Your task to perform on an android device: turn off location Image 0: 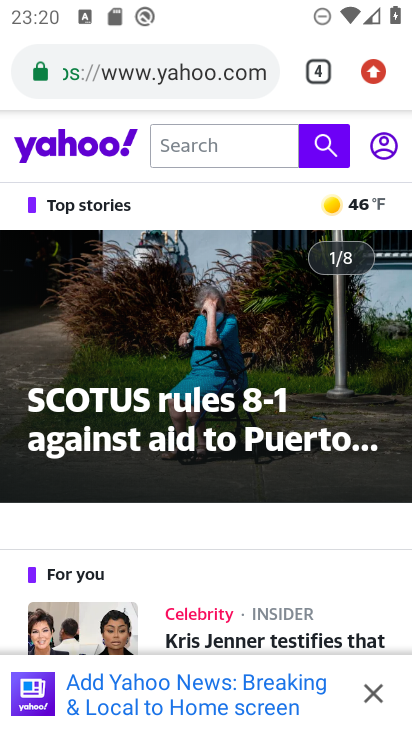
Step 0: press home button
Your task to perform on an android device: turn off location Image 1: 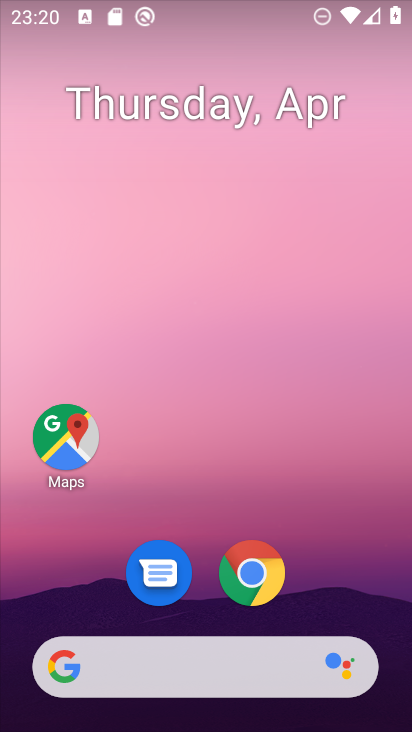
Step 1: drag from (347, 422) to (363, 55)
Your task to perform on an android device: turn off location Image 2: 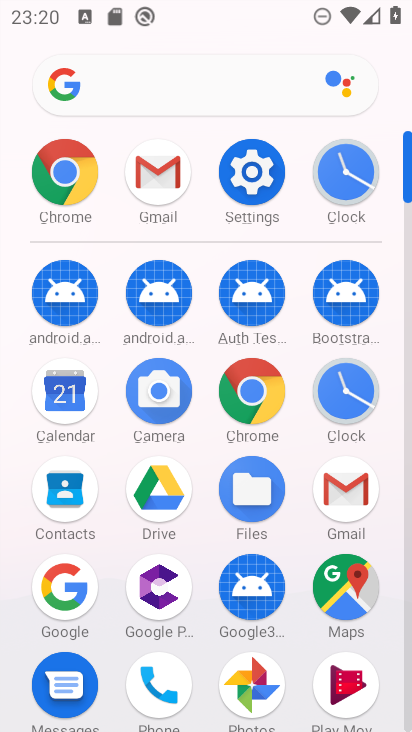
Step 2: click (245, 178)
Your task to perform on an android device: turn off location Image 3: 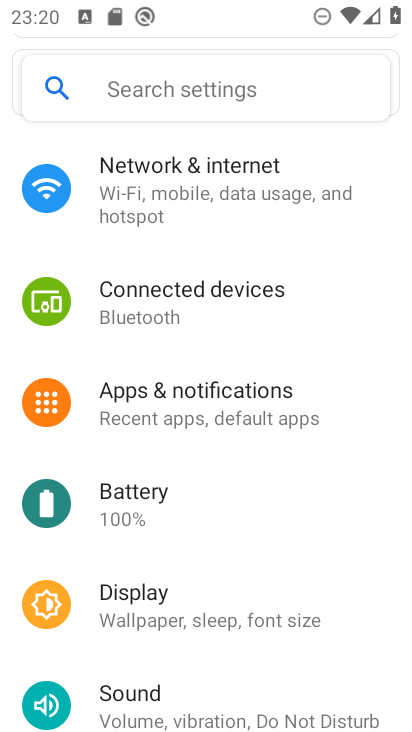
Step 3: drag from (265, 559) to (277, 166)
Your task to perform on an android device: turn off location Image 4: 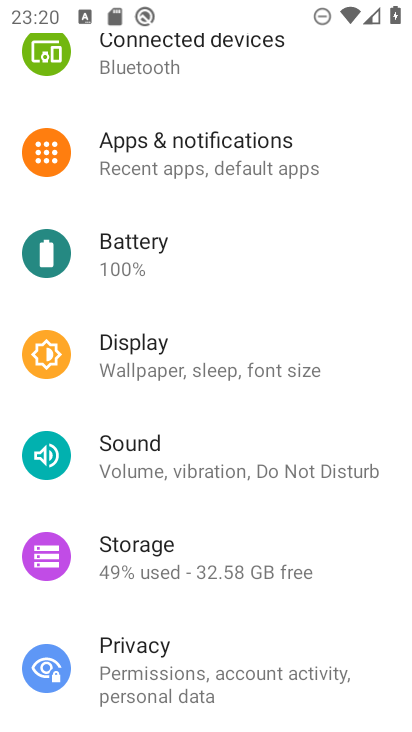
Step 4: drag from (261, 509) to (269, 147)
Your task to perform on an android device: turn off location Image 5: 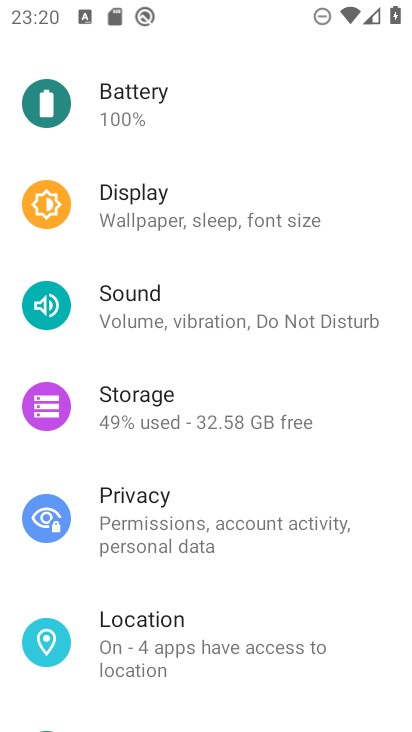
Step 5: click (205, 638)
Your task to perform on an android device: turn off location Image 6: 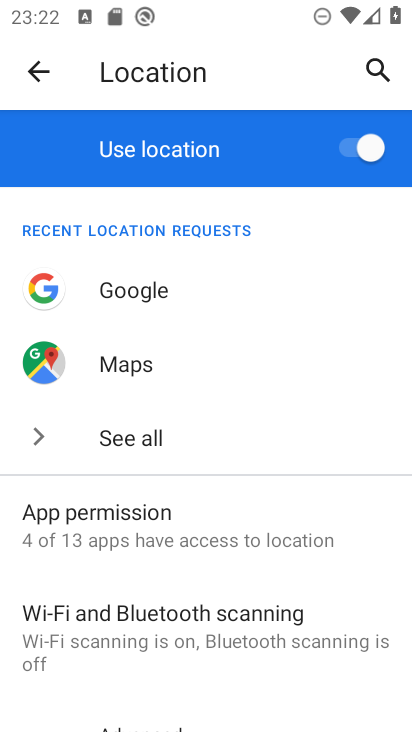
Step 6: click (364, 147)
Your task to perform on an android device: turn off location Image 7: 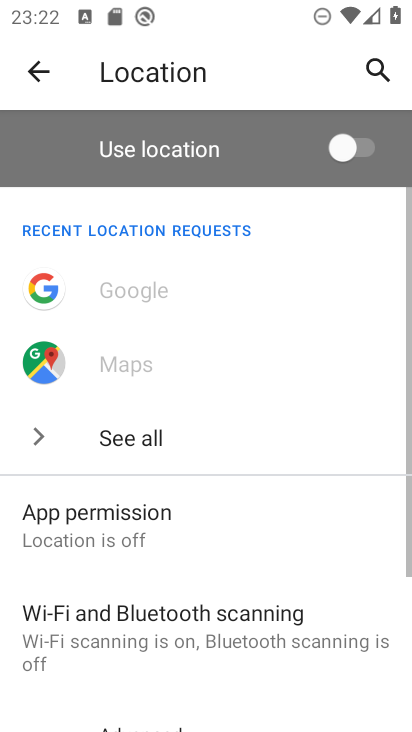
Step 7: task complete